Your task to perform on an android device: turn on priority inbox in the gmail app Image 0: 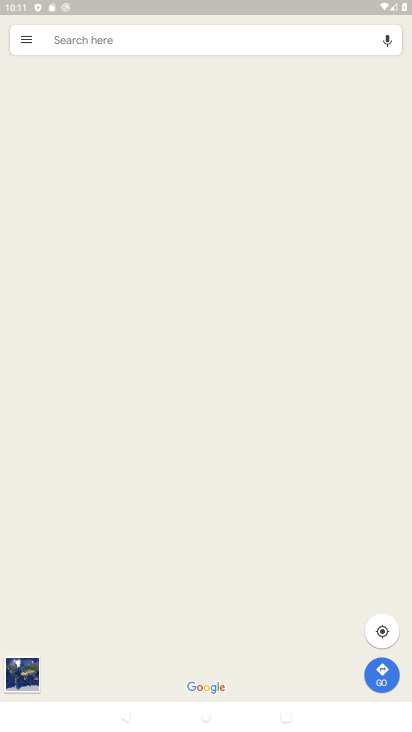
Step 0: click (206, 255)
Your task to perform on an android device: turn on priority inbox in the gmail app Image 1: 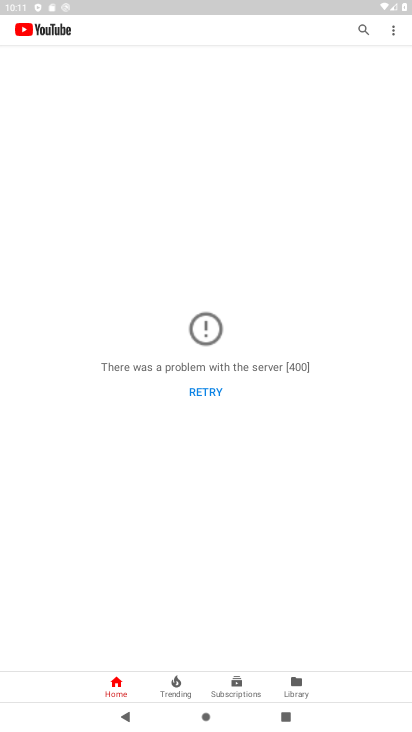
Step 1: press home button
Your task to perform on an android device: turn on priority inbox in the gmail app Image 2: 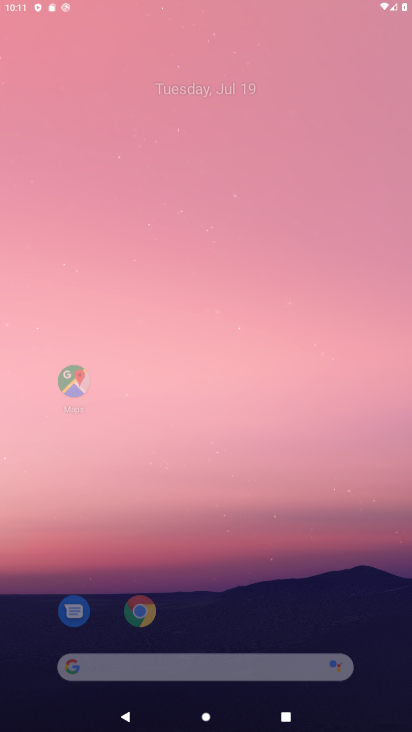
Step 2: drag from (199, 540) to (328, 234)
Your task to perform on an android device: turn on priority inbox in the gmail app Image 3: 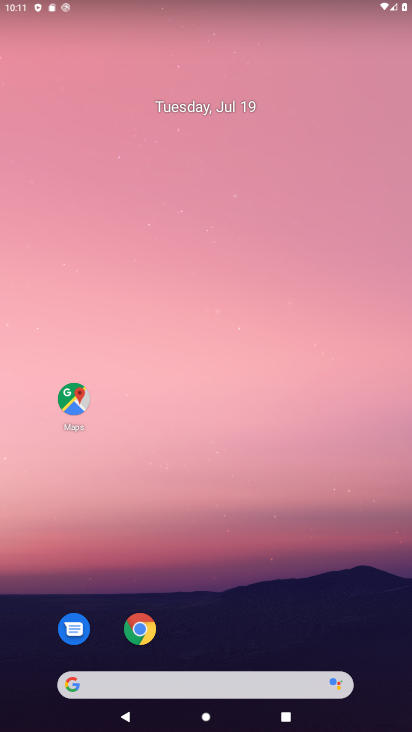
Step 3: drag from (285, 539) to (367, 265)
Your task to perform on an android device: turn on priority inbox in the gmail app Image 4: 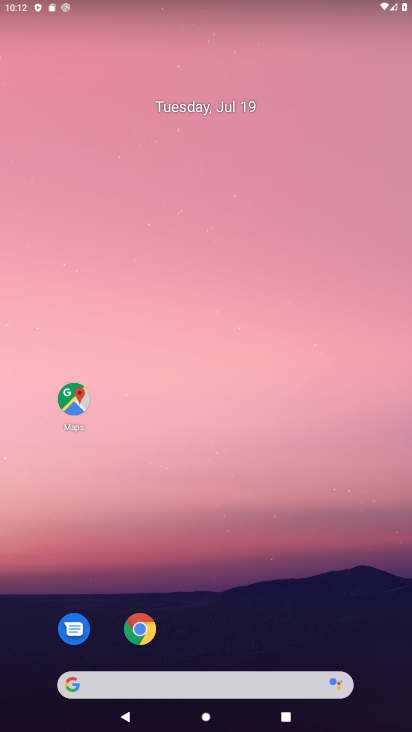
Step 4: drag from (270, 605) to (210, 135)
Your task to perform on an android device: turn on priority inbox in the gmail app Image 5: 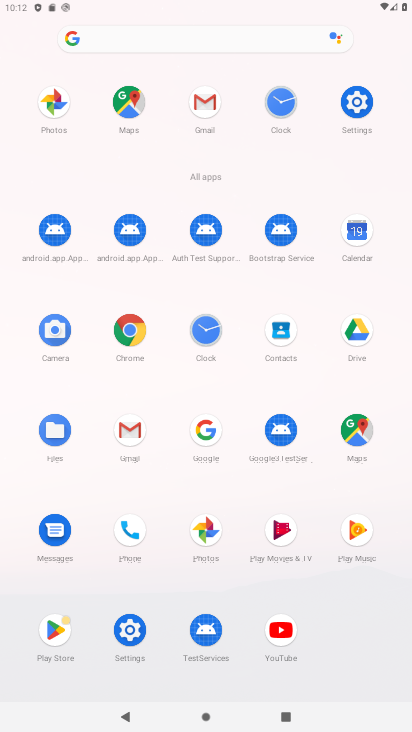
Step 5: click (133, 415)
Your task to perform on an android device: turn on priority inbox in the gmail app Image 6: 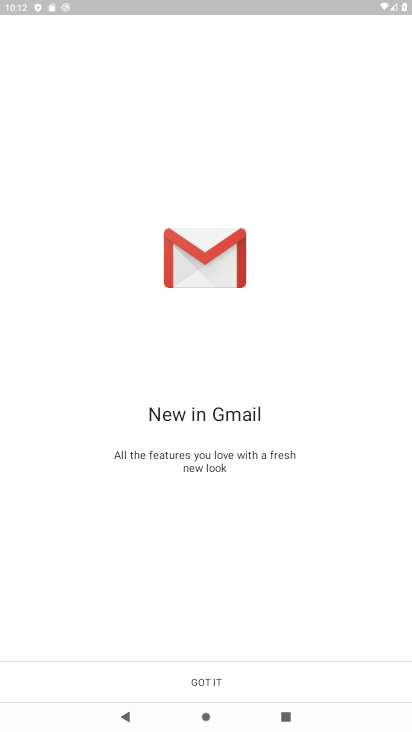
Step 6: click (176, 677)
Your task to perform on an android device: turn on priority inbox in the gmail app Image 7: 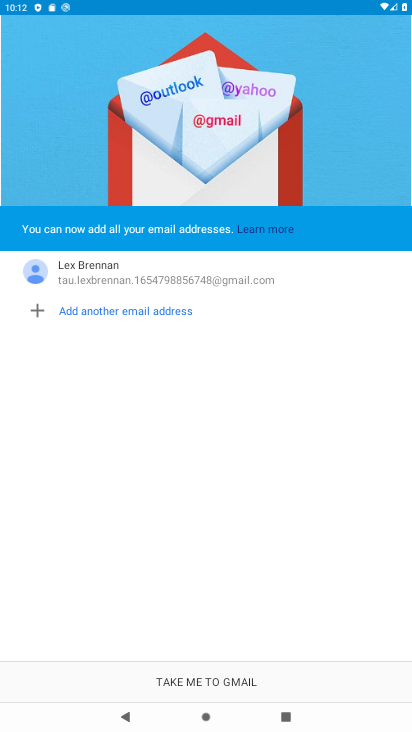
Step 7: click (221, 681)
Your task to perform on an android device: turn on priority inbox in the gmail app Image 8: 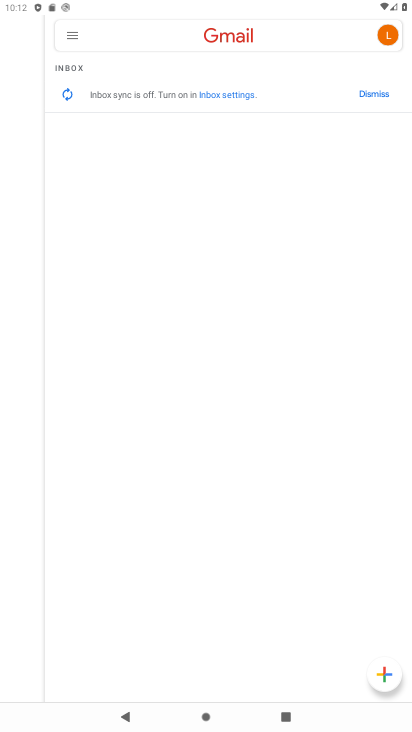
Step 8: click (23, 43)
Your task to perform on an android device: turn on priority inbox in the gmail app Image 9: 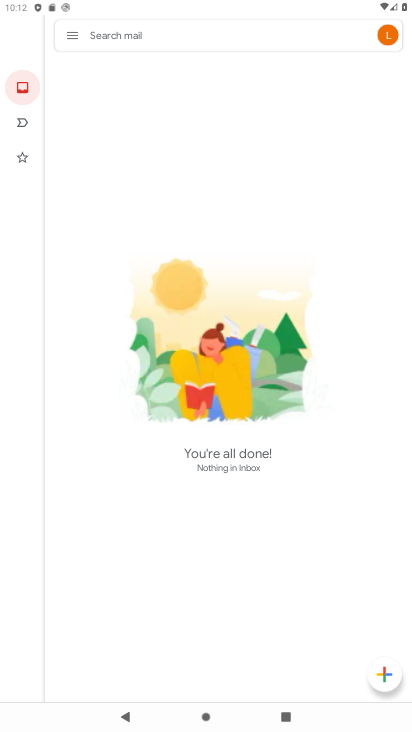
Step 9: click (76, 34)
Your task to perform on an android device: turn on priority inbox in the gmail app Image 10: 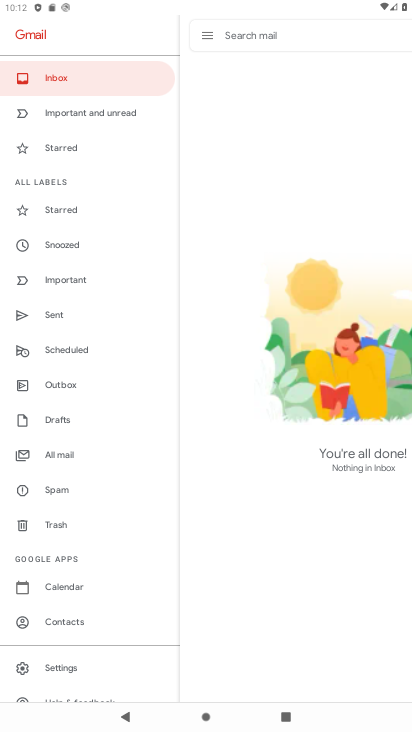
Step 10: click (81, 675)
Your task to perform on an android device: turn on priority inbox in the gmail app Image 11: 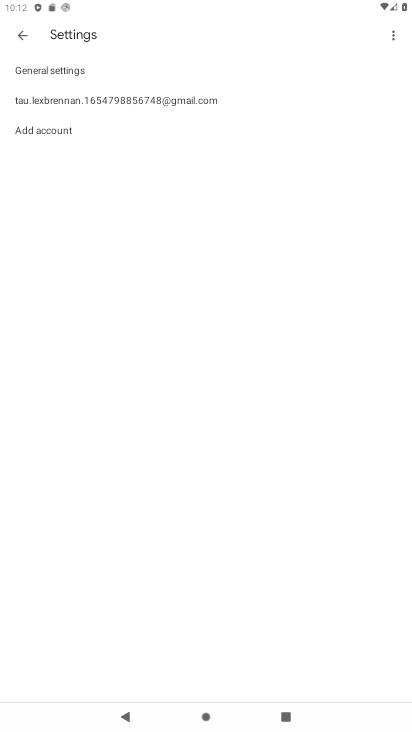
Step 11: click (130, 96)
Your task to perform on an android device: turn on priority inbox in the gmail app Image 12: 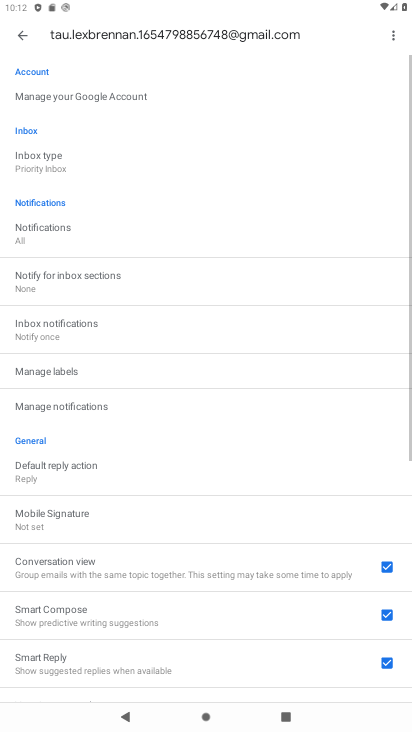
Step 12: click (106, 163)
Your task to perform on an android device: turn on priority inbox in the gmail app Image 13: 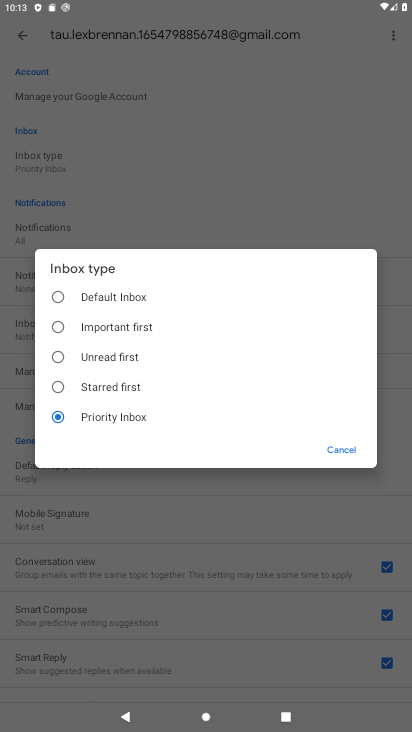
Step 13: click (148, 405)
Your task to perform on an android device: turn on priority inbox in the gmail app Image 14: 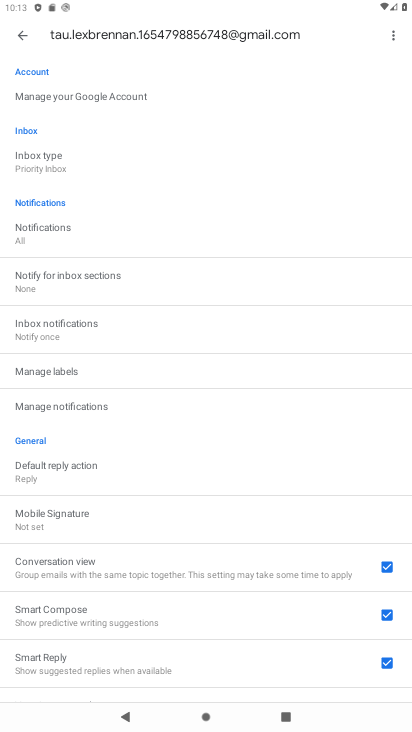
Step 14: task complete